Your task to perform on an android device: turn off wifi Image 0: 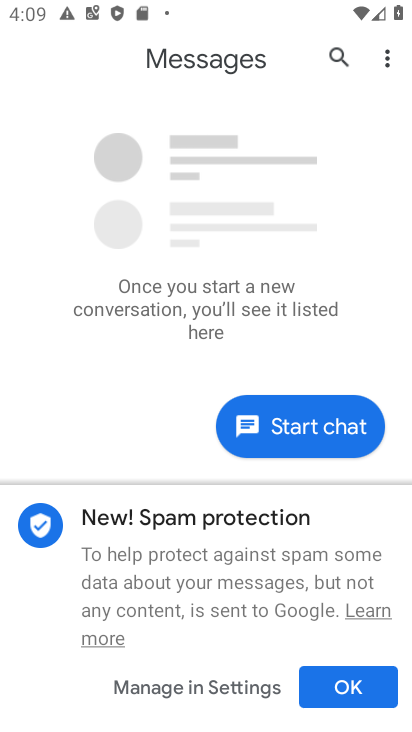
Step 0: press home button
Your task to perform on an android device: turn off wifi Image 1: 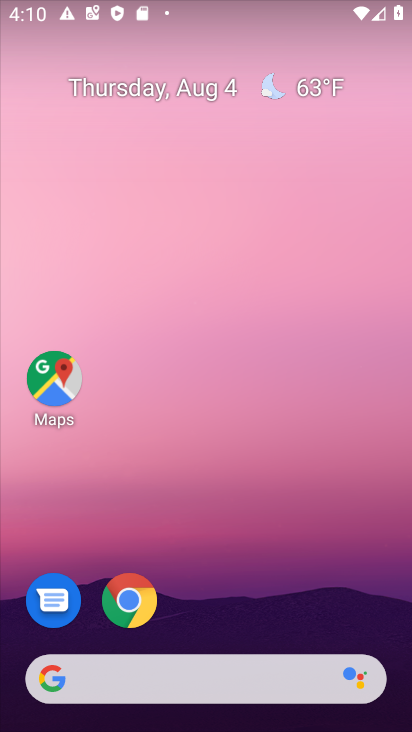
Step 1: drag from (266, 595) to (286, 154)
Your task to perform on an android device: turn off wifi Image 2: 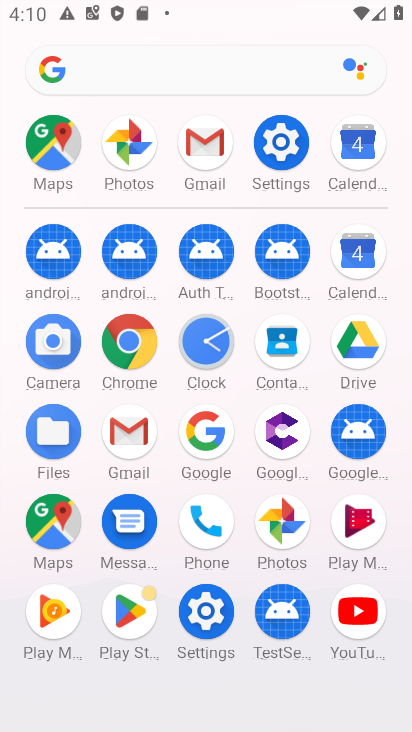
Step 2: click (282, 148)
Your task to perform on an android device: turn off wifi Image 3: 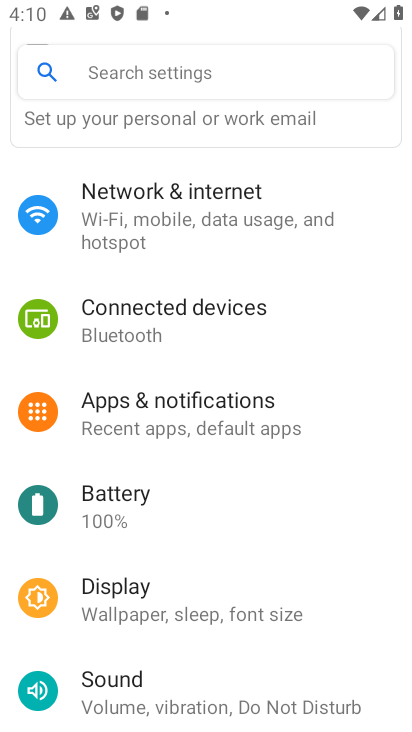
Step 3: click (225, 220)
Your task to perform on an android device: turn off wifi Image 4: 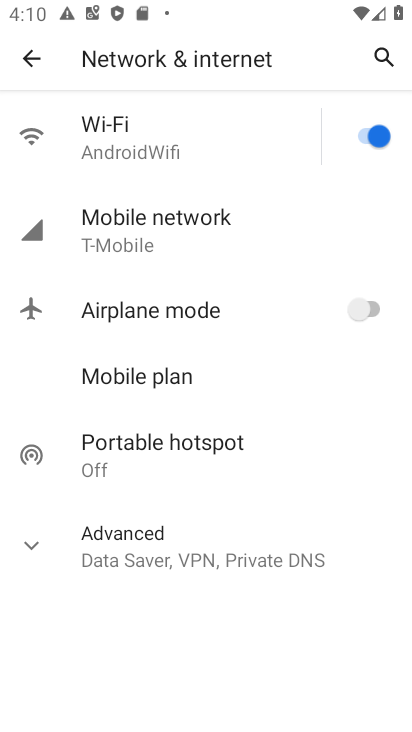
Step 4: click (355, 138)
Your task to perform on an android device: turn off wifi Image 5: 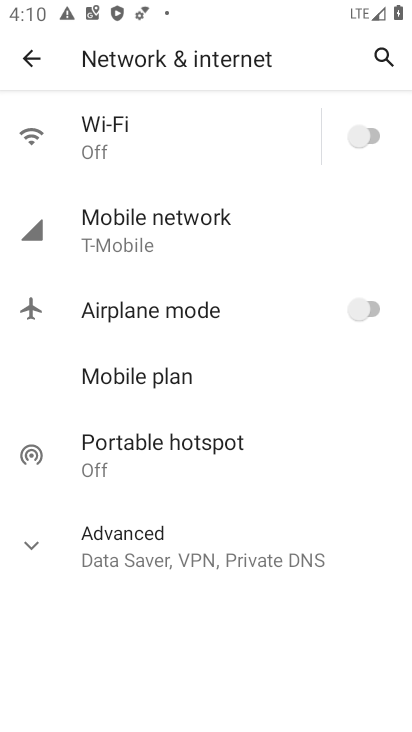
Step 5: task complete